Your task to perform on an android device: How do I get to the nearest McDonalds? Image 0: 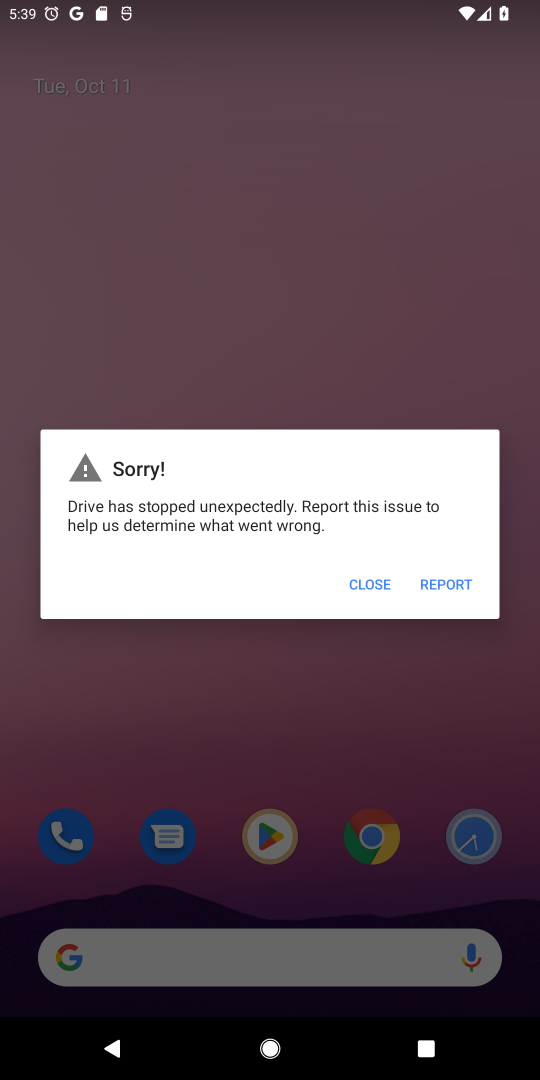
Step 0: click (366, 586)
Your task to perform on an android device: How do I get to the nearest McDonalds? Image 1: 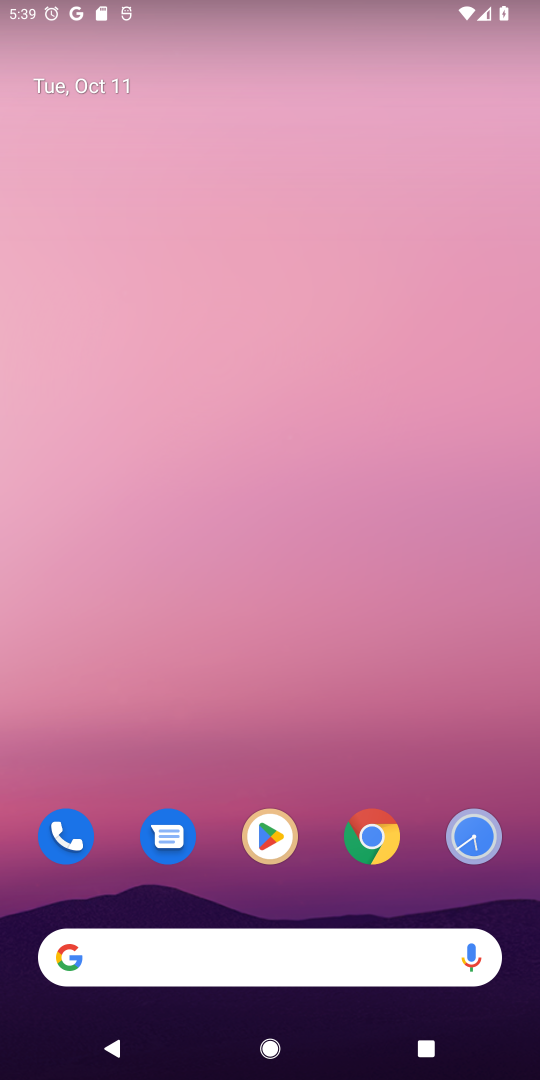
Step 1: click (287, 967)
Your task to perform on an android device: How do I get to the nearest McDonalds? Image 2: 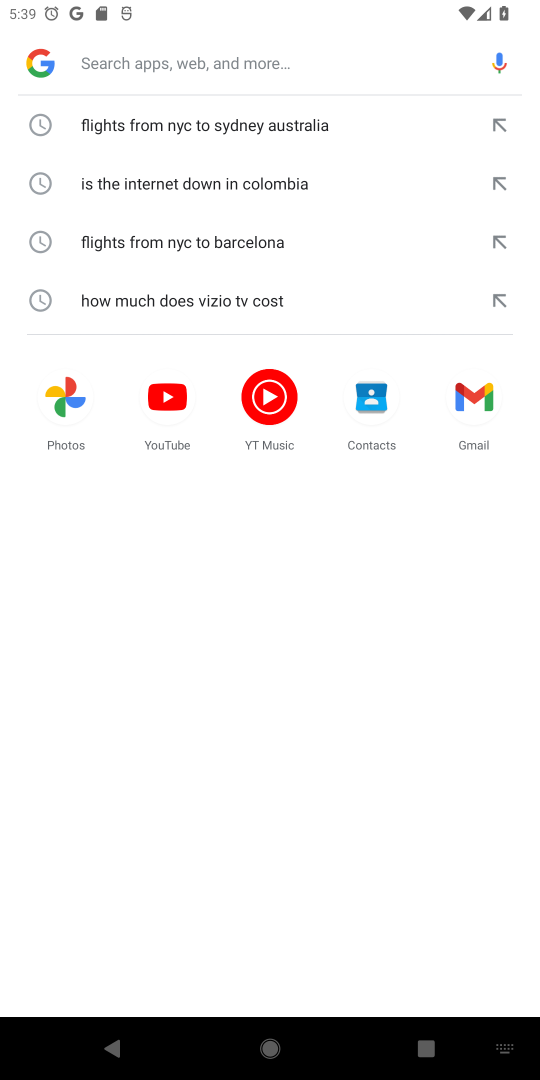
Step 2: type "I get to the nearest McDonalds?"
Your task to perform on an android device: How do I get to the nearest McDonalds? Image 3: 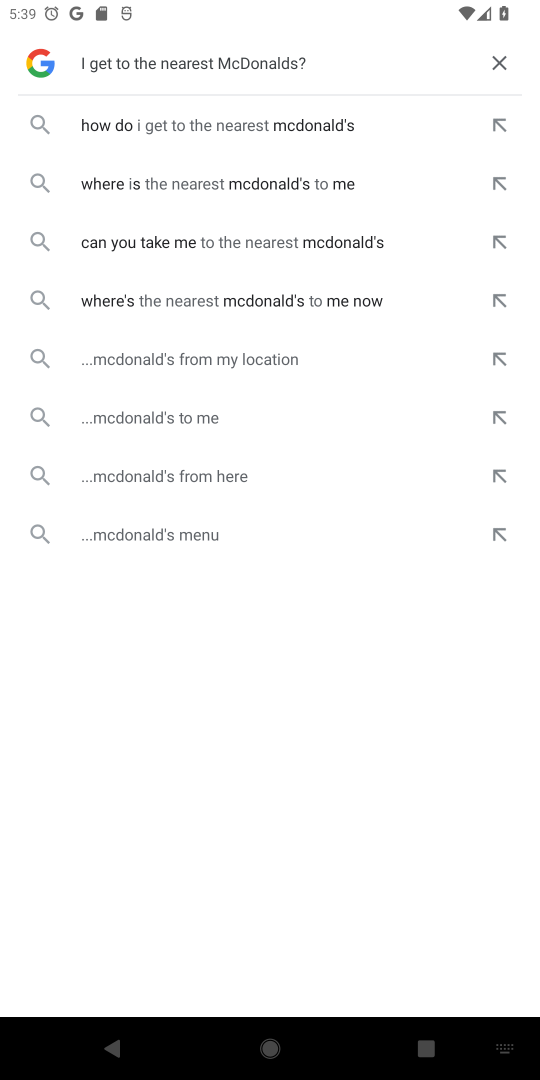
Step 3: click (218, 126)
Your task to perform on an android device: How do I get to the nearest McDonalds? Image 4: 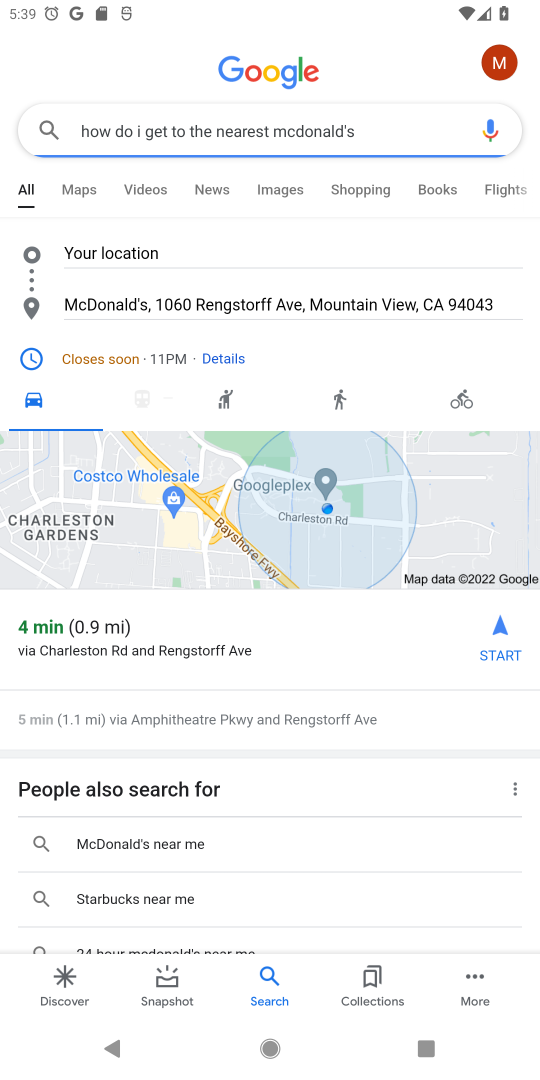
Step 4: task complete